Your task to perform on an android device: open app "Microsoft Authenticator" Image 0: 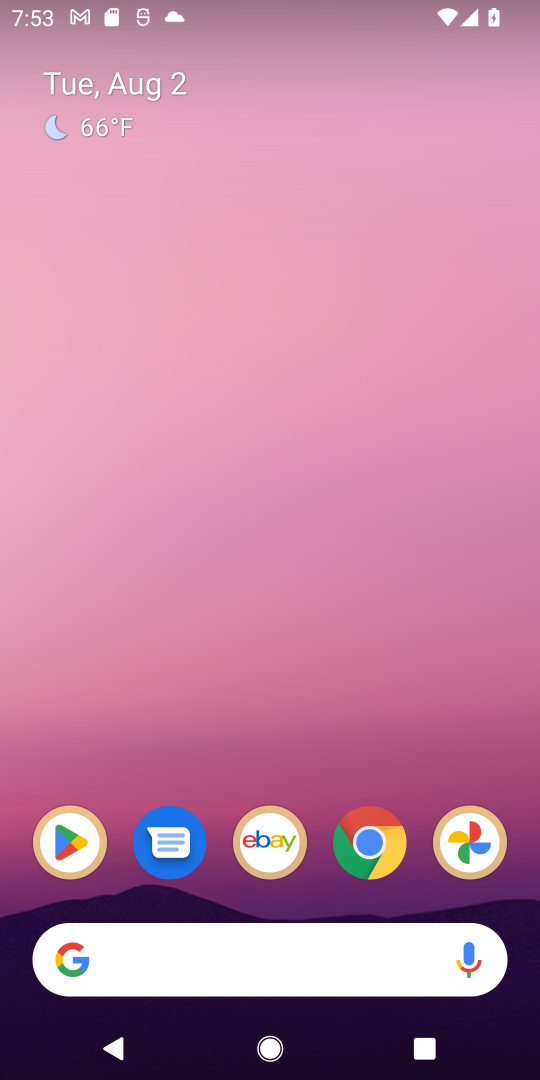
Step 0: click (79, 842)
Your task to perform on an android device: open app "Microsoft Authenticator" Image 1: 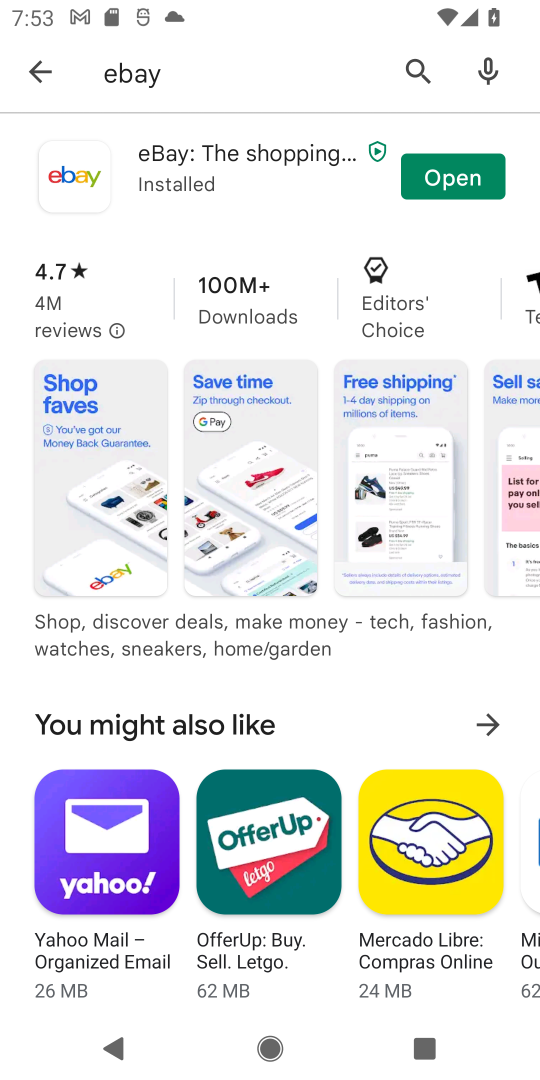
Step 1: click (173, 83)
Your task to perform on an android device: open app "Microsoft Authenticator" Image 2: 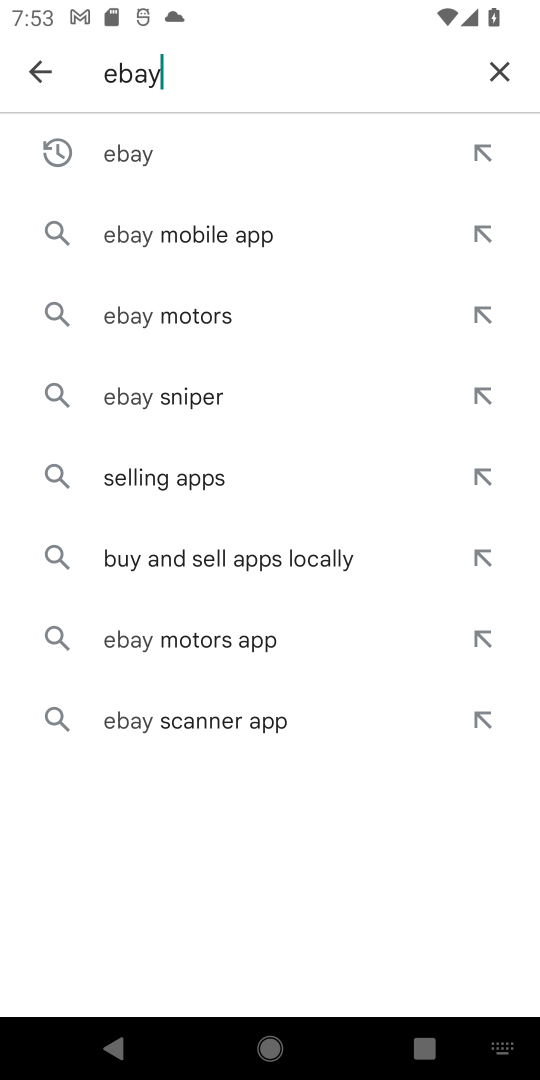
Step 2: click (498, 69)
Your task to perform on an android device: open app "Microsoft Authenticator" Image 3: 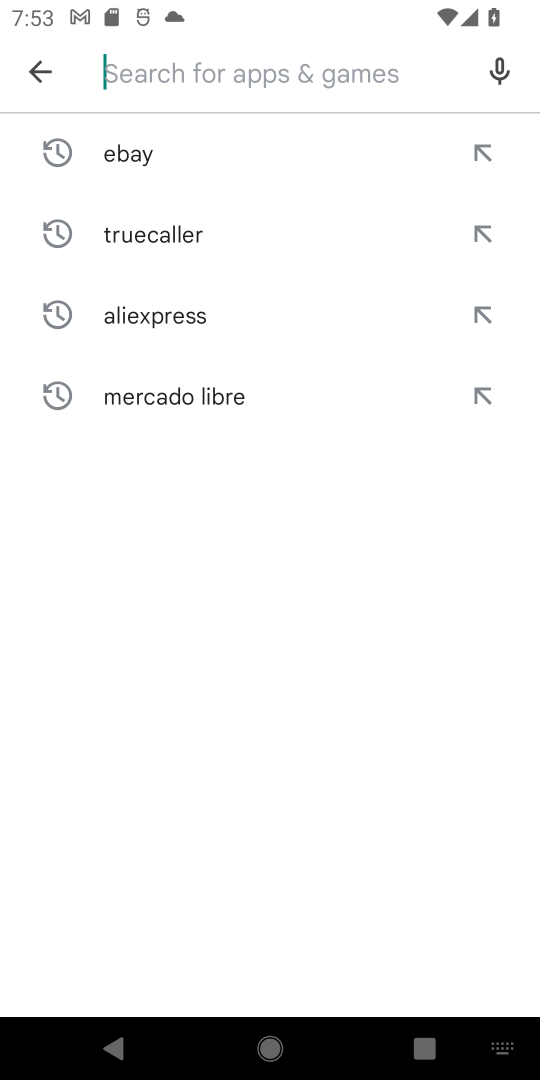
Step 3: type "MIcrosoft Authemticator"
Your task to perform on an android device: open app "Microsoft Authenticator" Image 4: 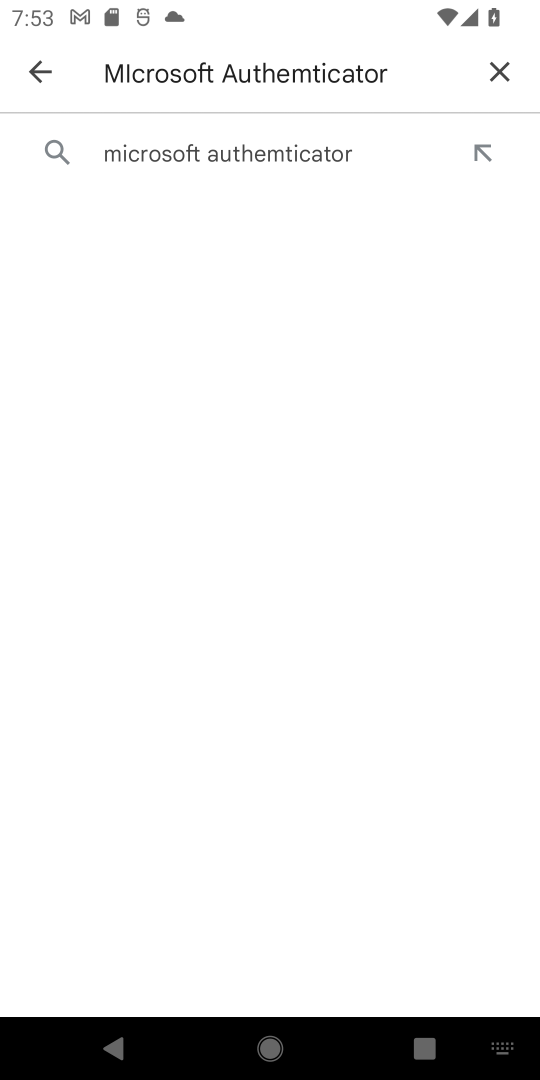
Step 4: click (313, 84)
Your task to perform on an android device: open app "Microsoft Authenticator" Image 5: 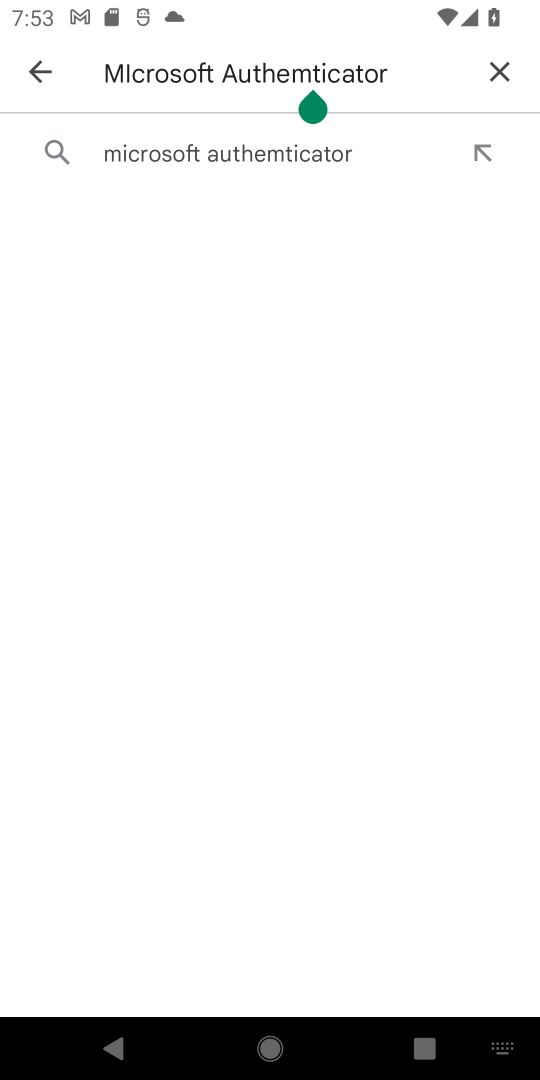
Step 5: click (296, 74)
Your task to perform on an android device: open app "Microsoft Authenticator" Image 6: 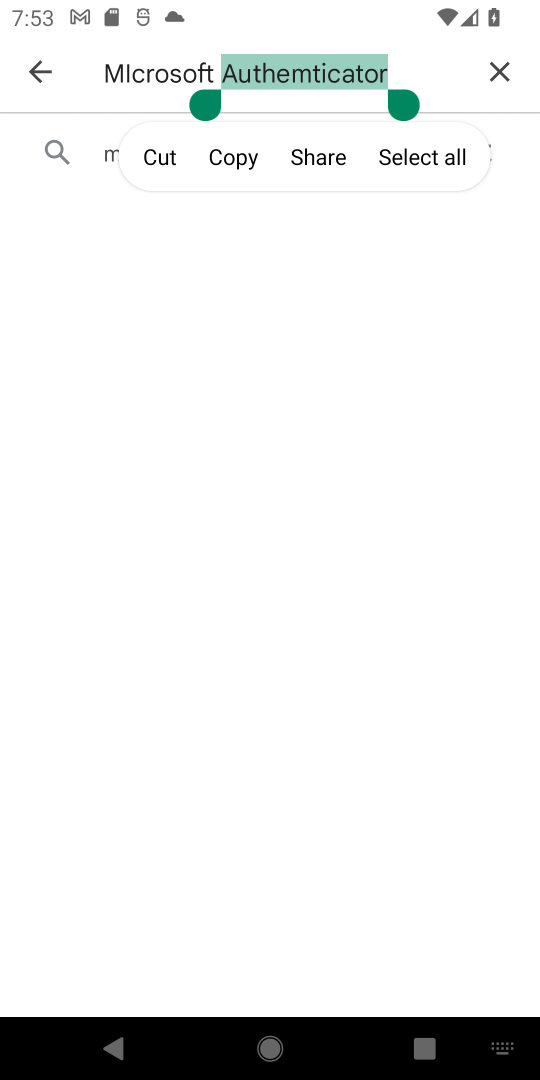
Step 6: type "Authenticator"
Your task to perform on an android device: open app "Microsoft Authenticator" Image 7: 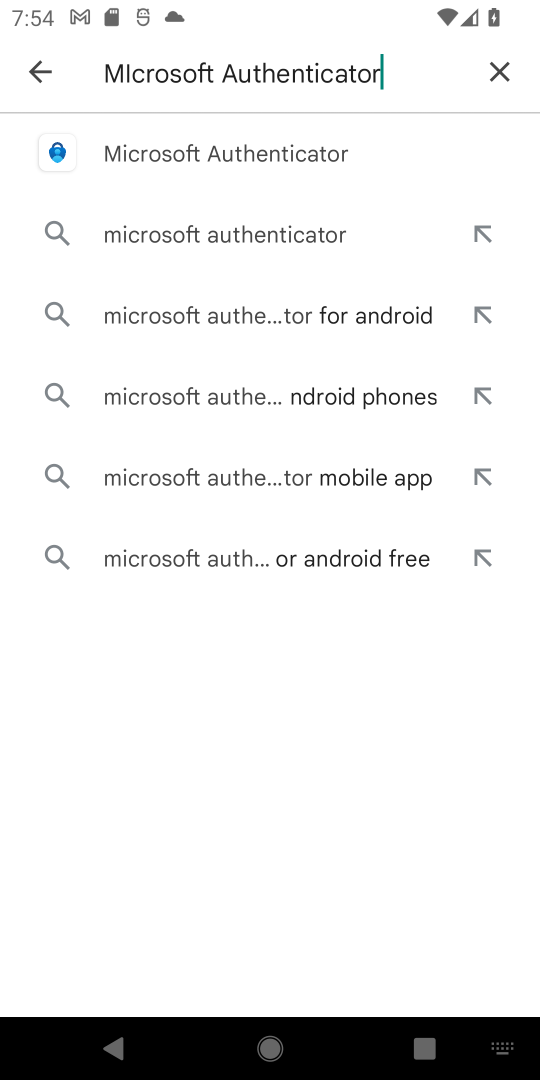
Step 7: click (347, 176)
Your task to perform on an android device: open app "Microsoft Authenticator" Image 8: 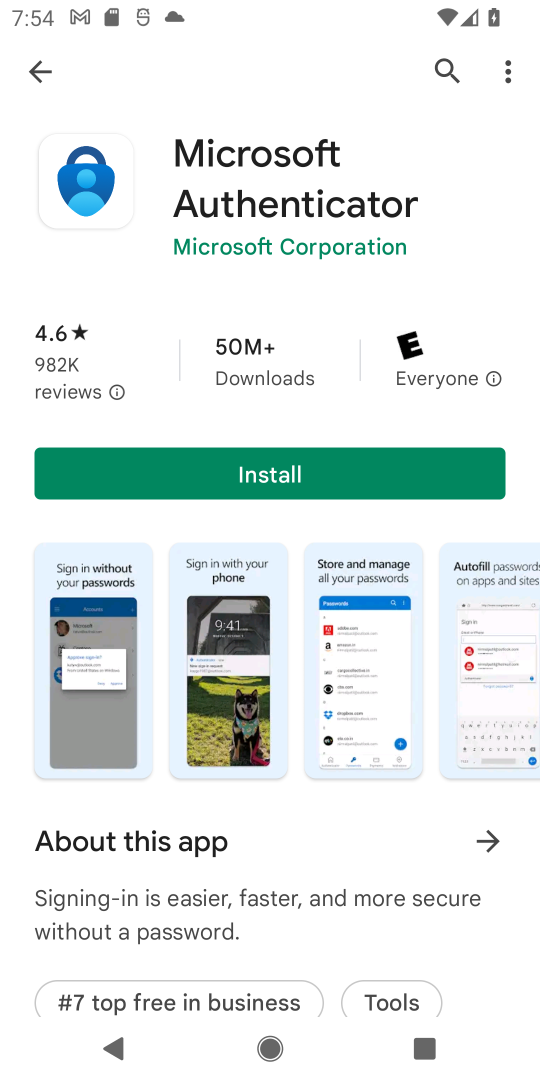
Step 8: task complete